Your task to perform on an android device: toggle translation in the chrome app Image 0: 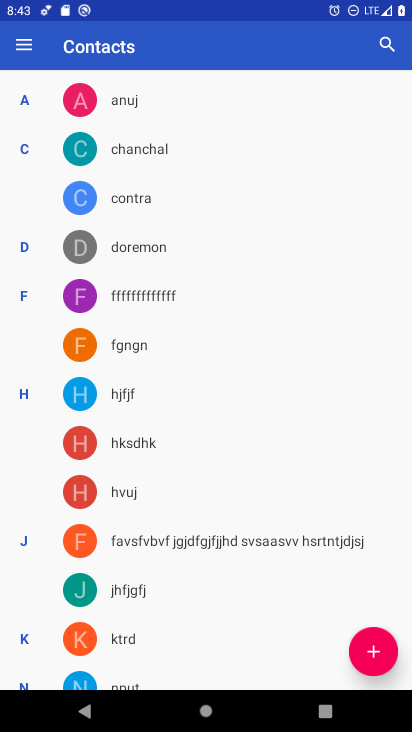
Step 0: press home button
Your task to perform on an android device: toggle translation in the chrome app Image 1: 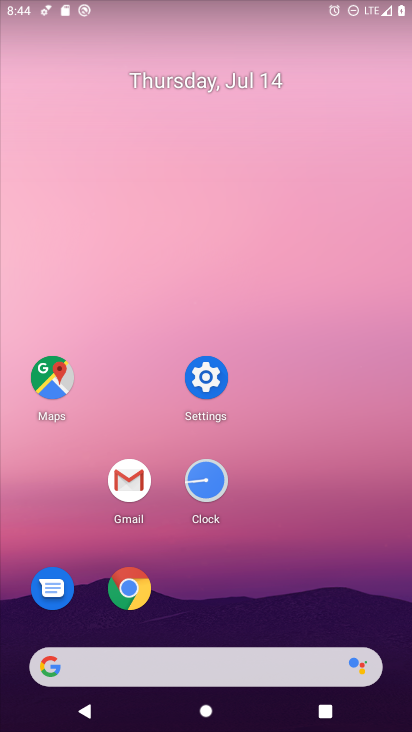
Step 1: click (130, 589)
Your task to perform on an android device: toggle translation in the chrome app Image 2: 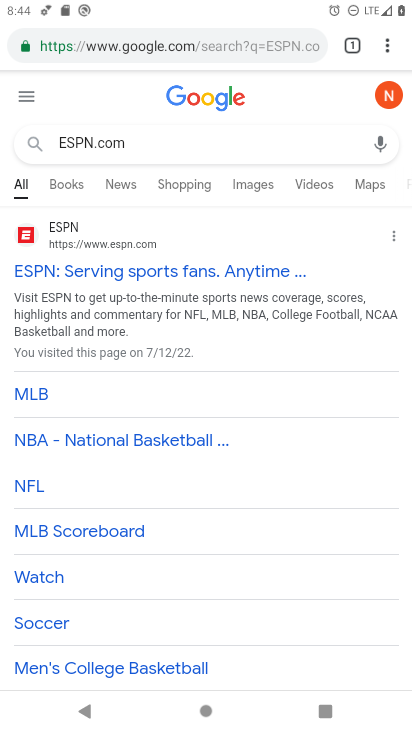
Step 2: click (388, 46)
Your task to perform on an android device: toggle translation in the chrome app Image 3: 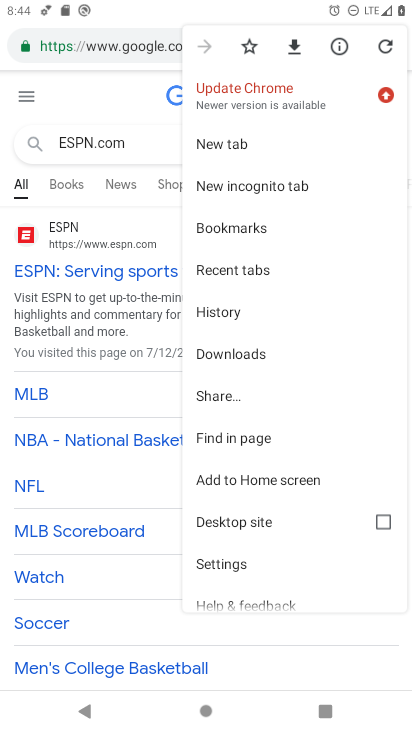
Step 3: click (224, 564)
Your task to perform on an android device: toggle translation in the chrome app Image 4: 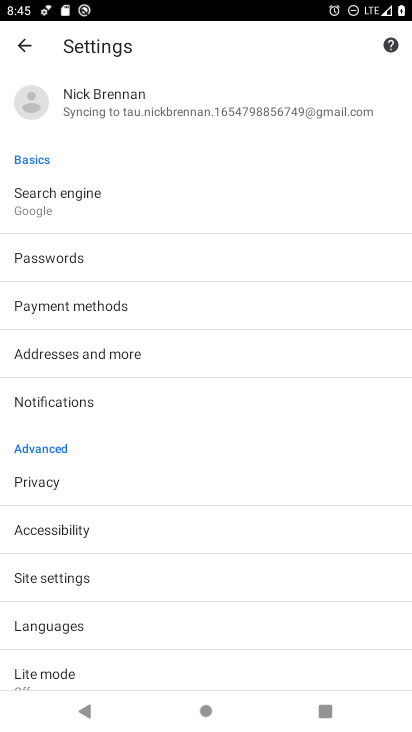
Step 4: click (44, 616)
Your task to perform on an android device: toggle translation in the chrome app Image 5: 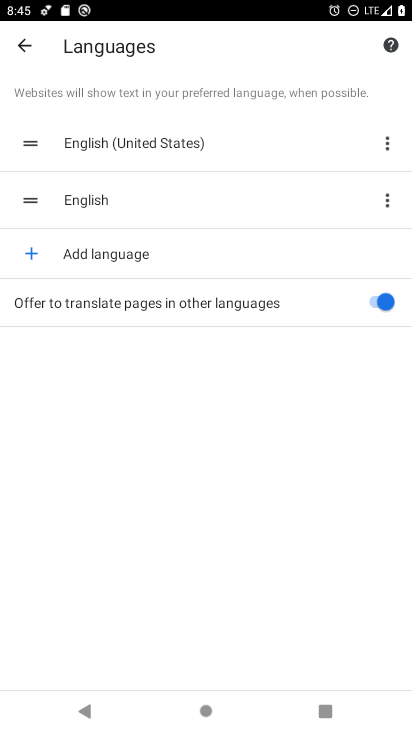
Step 5: click (376, 295)
Your task to perform on an android device: toggle translation in the chrome app Image 6: 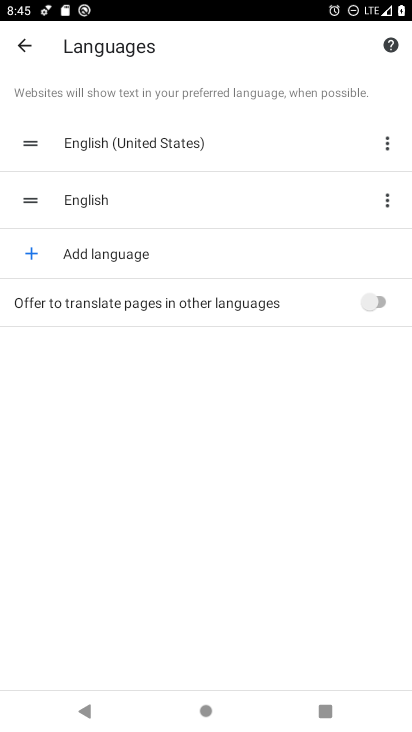
Step 6: task complete